Your task to perform on an android device: change keyboard looks Image 0: 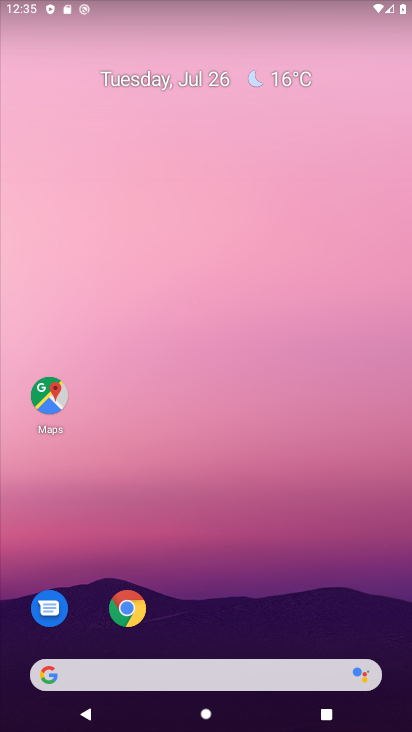
Step 0: drag from (185, 648) to (165, 257)
Your task to perform on an android device: change keyboard looks Image 1: 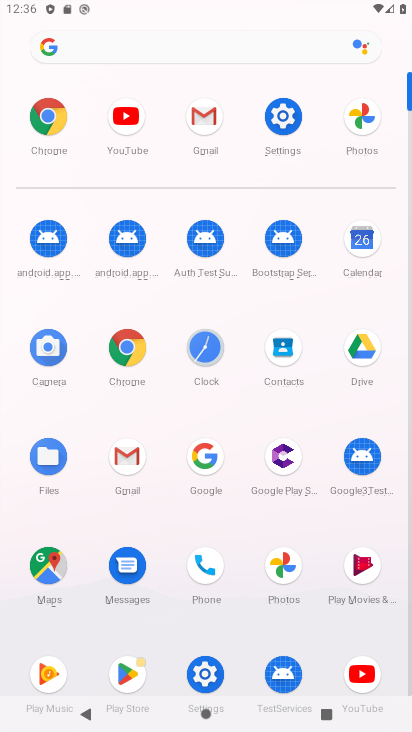
Step 1: task complete